Your task to perform on an android device: check storage Image 0: 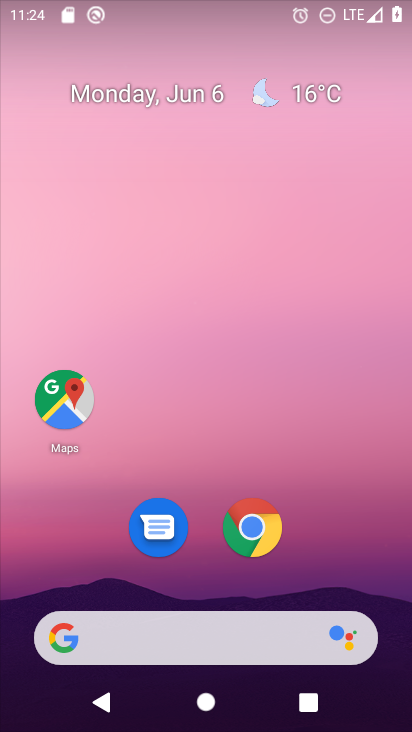
Step 0: drag from (361, 565) to (370, 140)
Your task to perform on an android device: check storage Image 1: 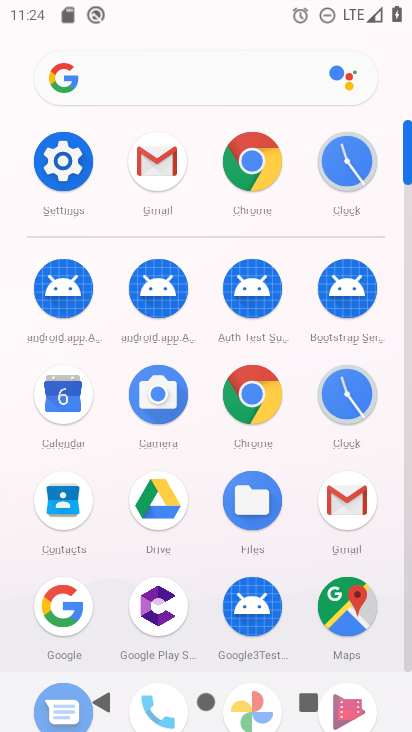
Step 1: click (77, 175)
Your task to perform on an android device: check storage Image 2: 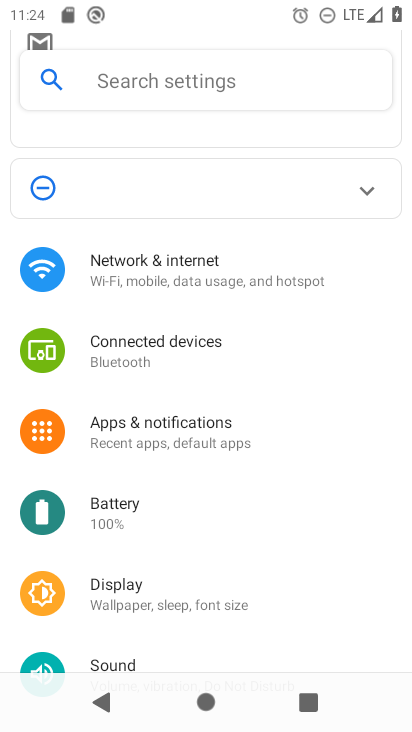
Step 2: drag from (354, 475) to (346, 302)
Your task to perform on an android device: check storage Image 3: 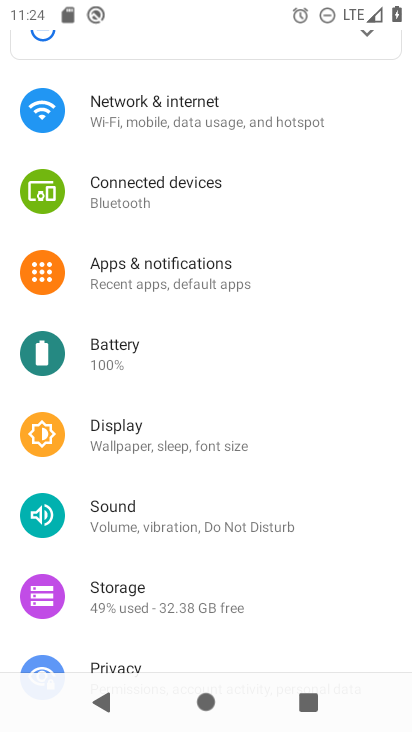
Step 3: drag from (339, 491) to (339, 355)
Your task to perform on an android device: check storage Image 4: 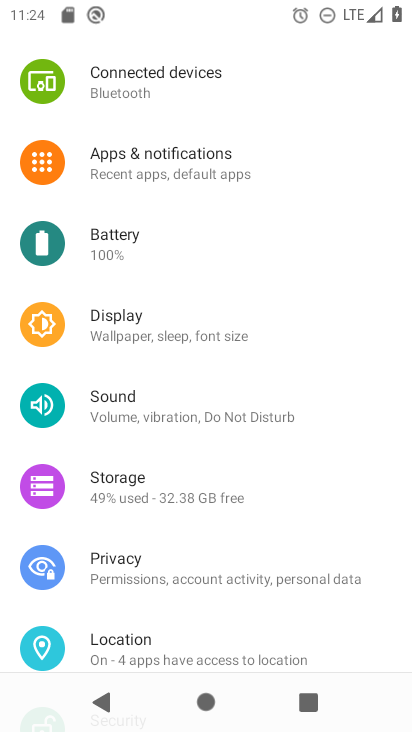
Step 4: drag from (335, 510) to (356, 335)
Your task to perform on an android device: check storage Image 5: 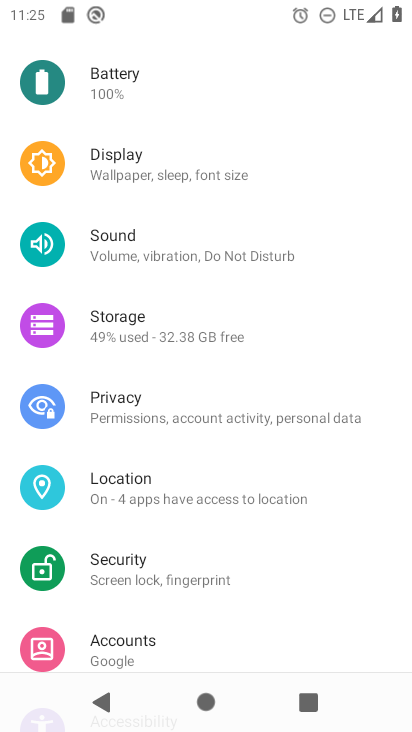
Step 5: drag from (338, 633) to (346, 431)
Your task to perform on an android device: check storage Image 6: 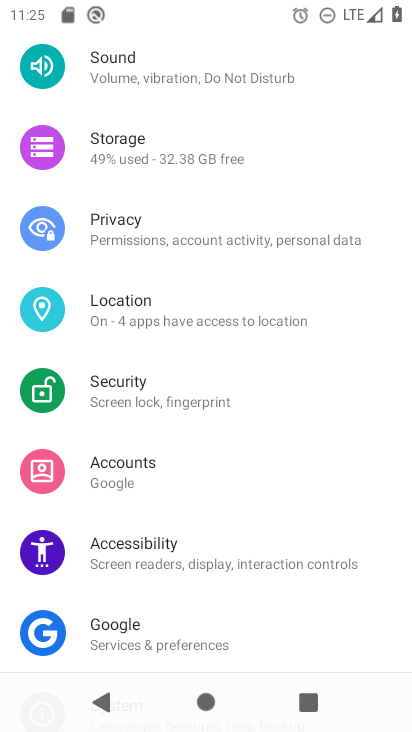
Step 6: drag from (315, 609) to (327, 431)
Your task to perform on an android device: check storage Image 7: 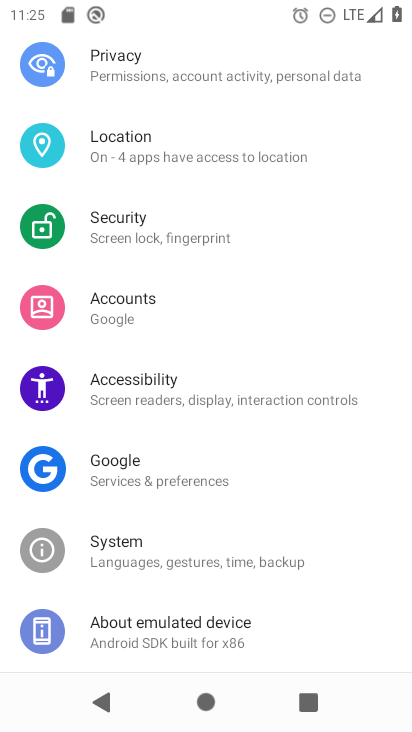
Step 7: drag from (340, 614) to (345, 429)
Your task to perform on an android device: check storage Image 8: 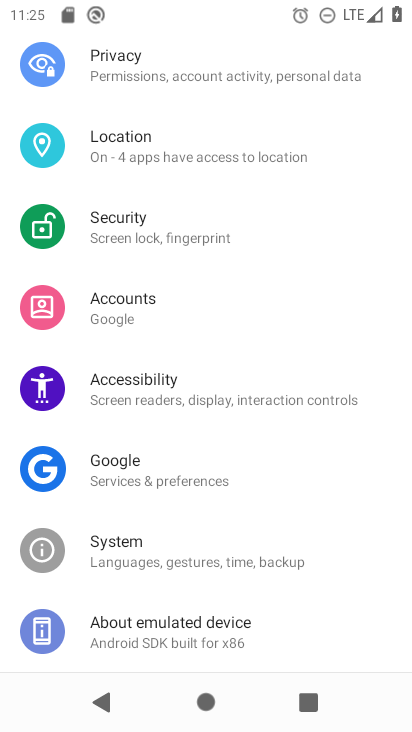
Step 8: drag from (335, 297) to (333, 559)
Your task to perform on an android device: check storage Image 9: 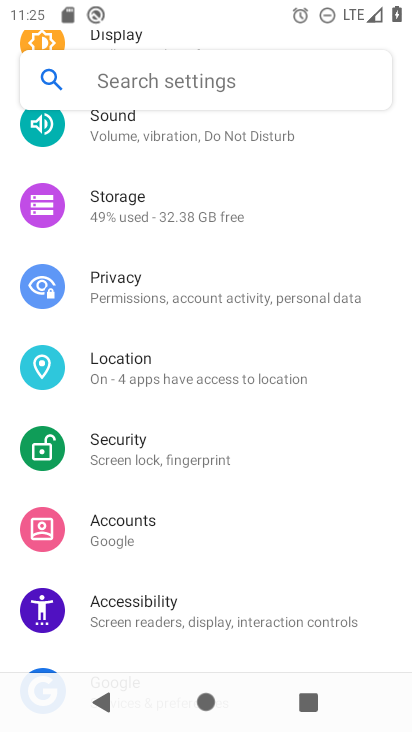
Step 9: drag from (327, 333) to (341, 473)
Your task to perform on an android device: check storage Image 10: 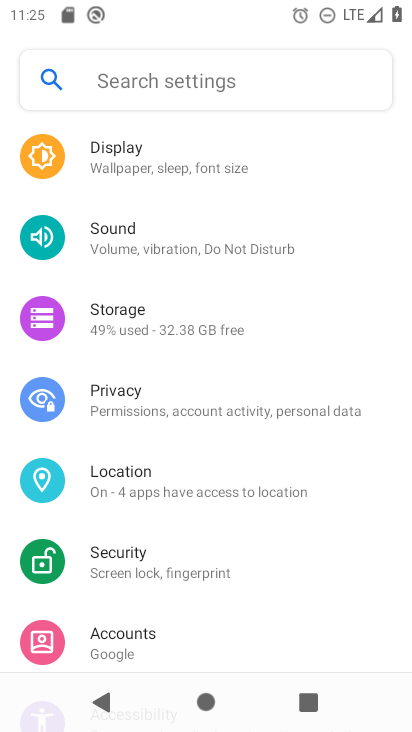
Step 10: drag from (351, 199) to (340, 421)
Your task to perform on an android device: check storage Image 11: 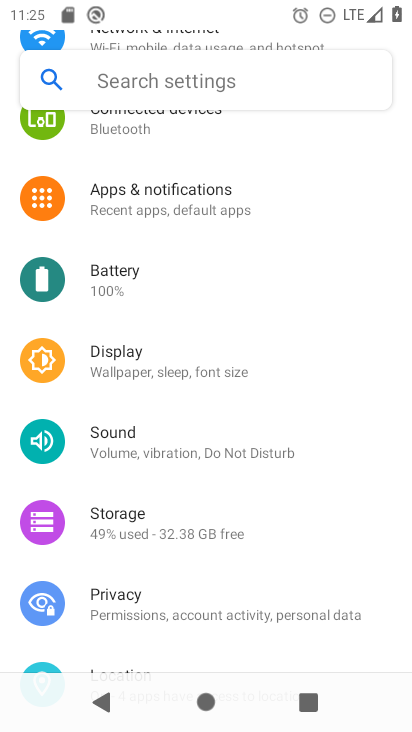
Step 11: drag from (313, 229) to (312, 406)
Your task to perform on an android device: check storage Image 12: 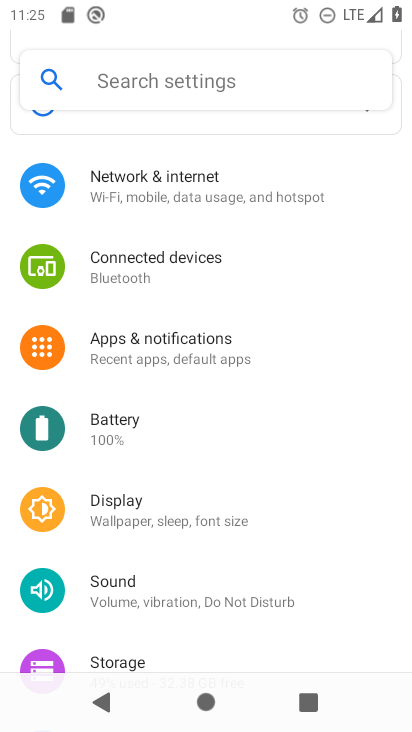
Step 12: drag from (306, 500) to (319, 385)
Your task to perform on an android device: check storage Image 13: 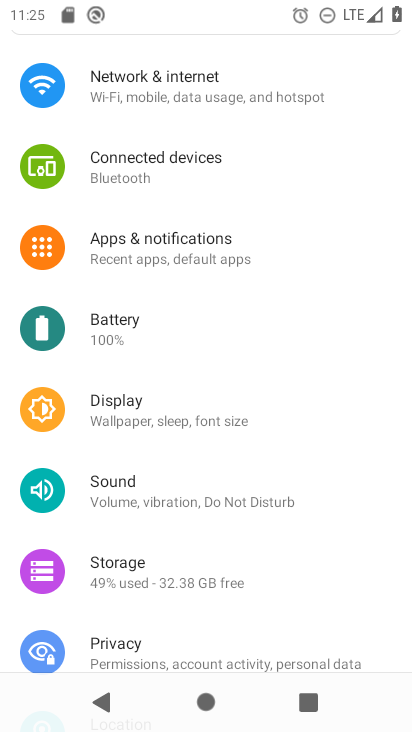
Step 13: drag from (308, 543) to (325, 401)
Your task to perform on an android device: check storage Image 14: 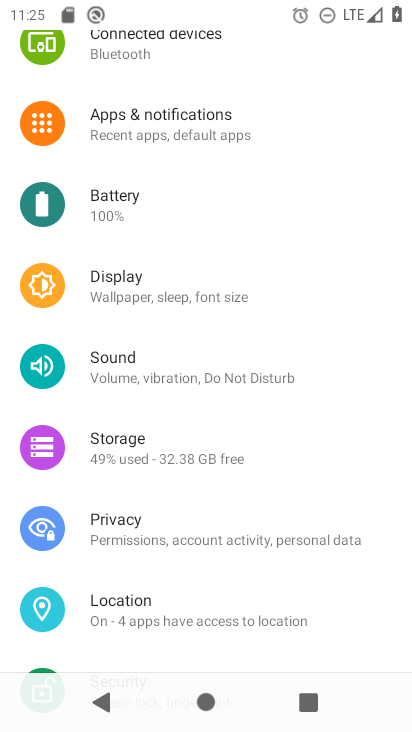
Step 14: click (200, 437)
Your task to perform on an android device: check storage Image 15: 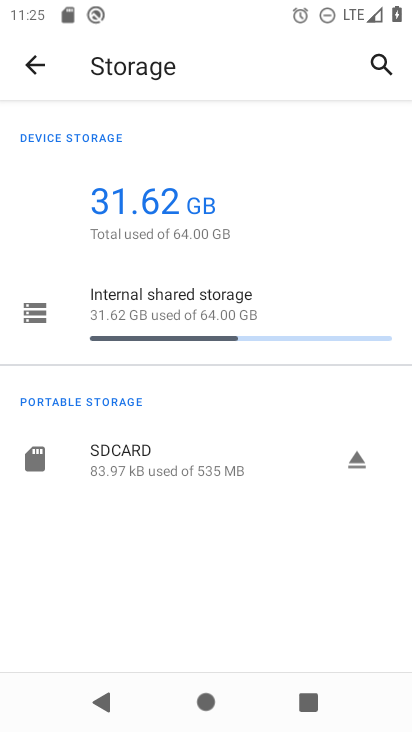
Step 15: task complete